Your task to perform on an android device: open app "Firefox Browser" (install if not already installed), go to login, and select forgot password Image 0: 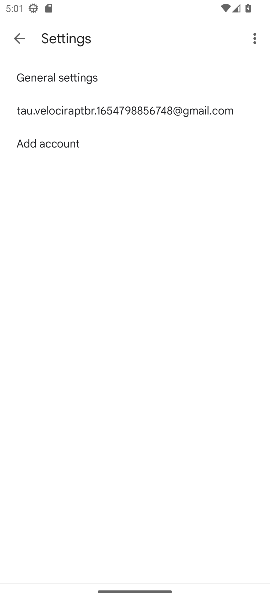
Step 0: press home button
Your task to perform on an android device: open app "Firefox Browser" (install if not already installed), go to login, and select forgot password Image 1: 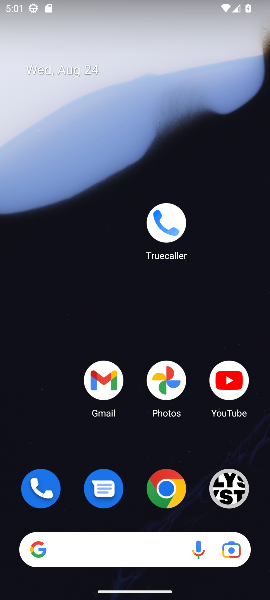
Step 1: drag from (129, 507) to (147, 142)
Your task to perform on an android device: open app "Firefox Browser" (install if not already installed), go to login, and select forgot password Image 2: 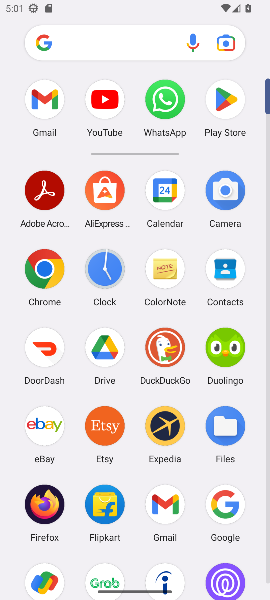
Step 2: click (214, 102)
Your task to perform on an android device: open app "Firefox Browser" (install if not already installed), go to login, and select forgot password Image 3: 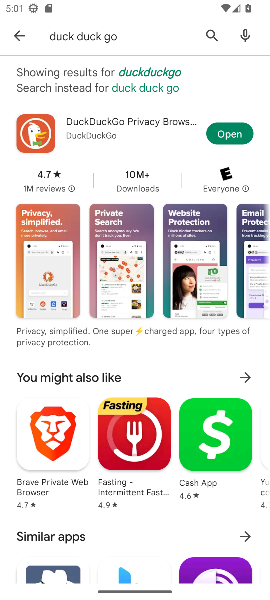
Step 3: click (198, 39)
Your task to perform on an android device: open app "Firefox Browser" (install if not already installed), go to login, and select forgot password Image 4: 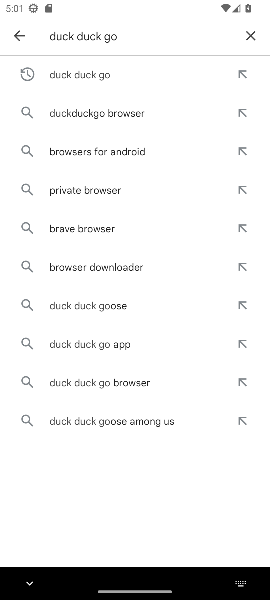
Step 4: click (251, 39)
Your task to perform on an android device: open app "Firefox Browser" (install if not already installed), go to login, and select forgot password Image 5: 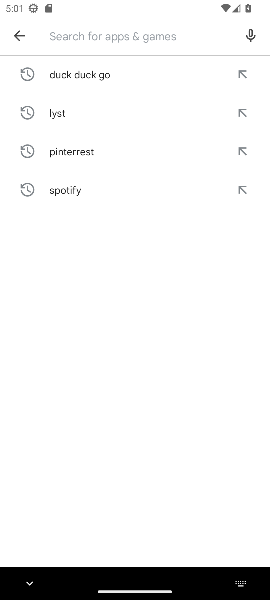
Step 5: type "firefox "
Your task to perform on an android device: open app "Firefox Browser" (install if not already installed), go to login, and select forgot password Image 6: 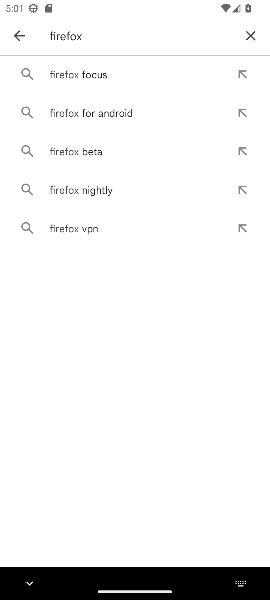
Step 6: click (131, 69)
Your task to perform on an android device: open app "Firefox Browser" (install if not already installed), go to login, and select forgot password Image 7: 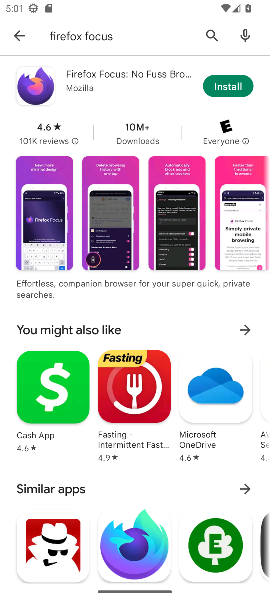
Step 7: click (240, 85)
Your task to perform on an android device: open app "Firefox Browser" (install if not already installed), go to login, and select forgot password Image 8: 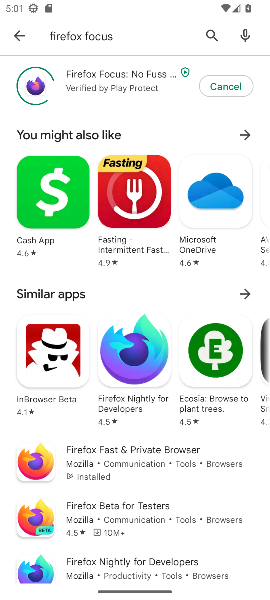
Step 8: task complete